Your task to perform on an android device: Empty the shopping cart on amazon.com. Add "logitech g933" to the cart on amazon.com Image 0: 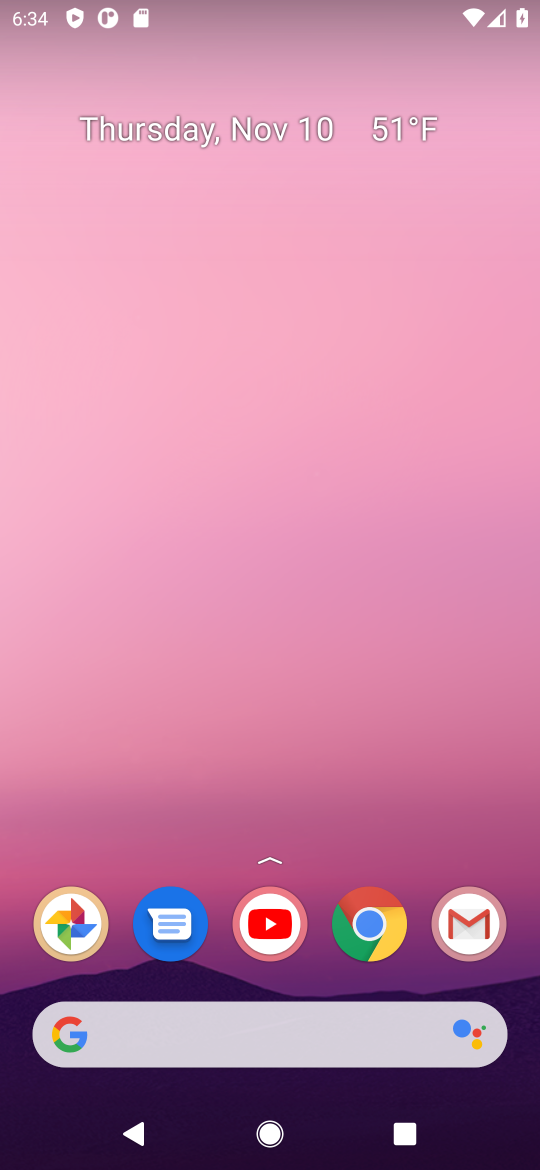
Step 0: click (361, 931)
Your task to perform on an android device: Empty the shopping cart on amazon.com. Add "logitech g933" to the cart on amazon.com Image 1: 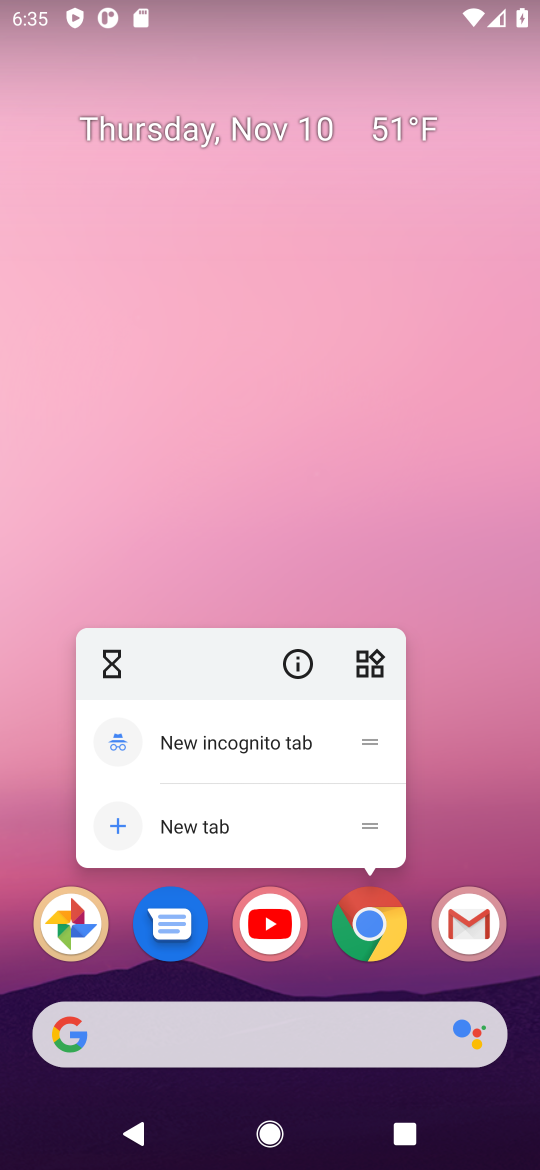
Step 1: click (371, 940)
Your task to perform on an android device: Empty the shopping cart on amazon.com. Add "logitech g933" to the cart on amazon.com Image 2: 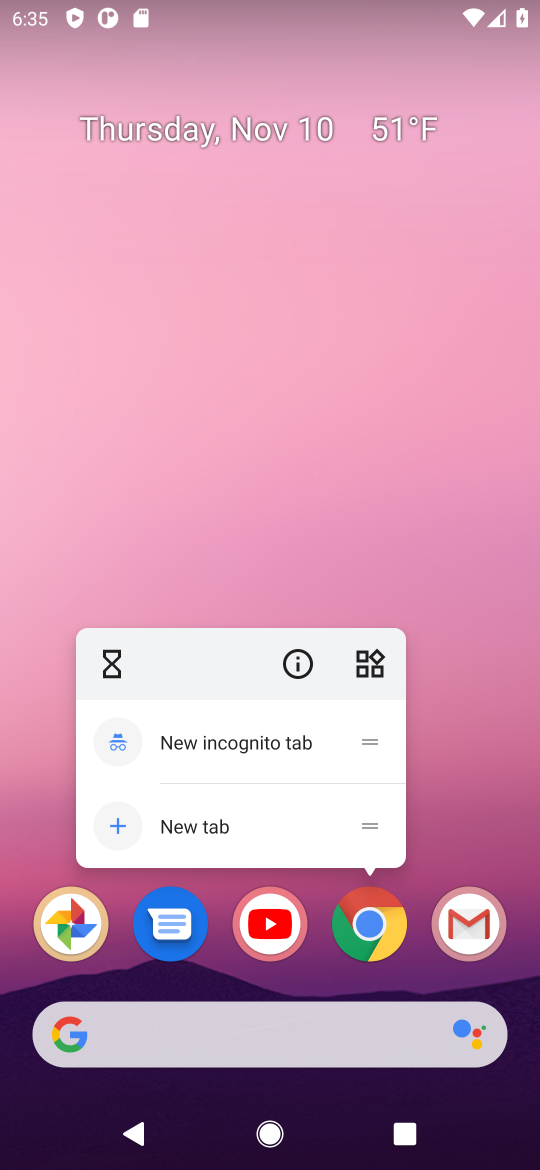
Step 2: click (372, 938)
Your task to perform on an android device: Empty the shopping cart on amazon.com. Add "logitech g933" to the cart on amazon.com Image 3: 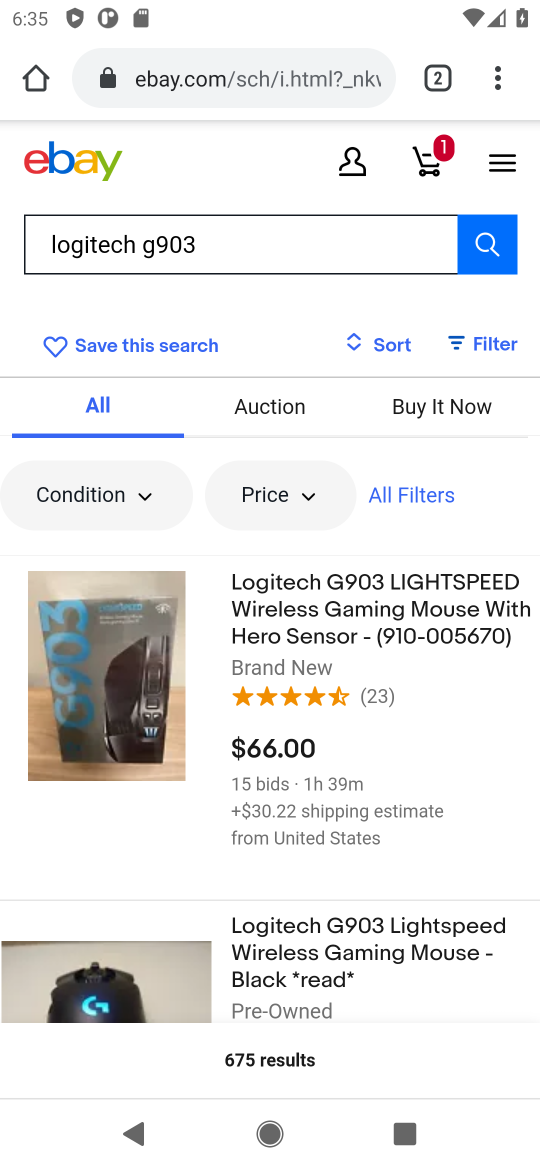
Step 3: click (191, 94)
Your task to perform on an android device: Empty the shopping cart on amazon.com. Add "logitech g933" to the cart on amazon.com Image 4: 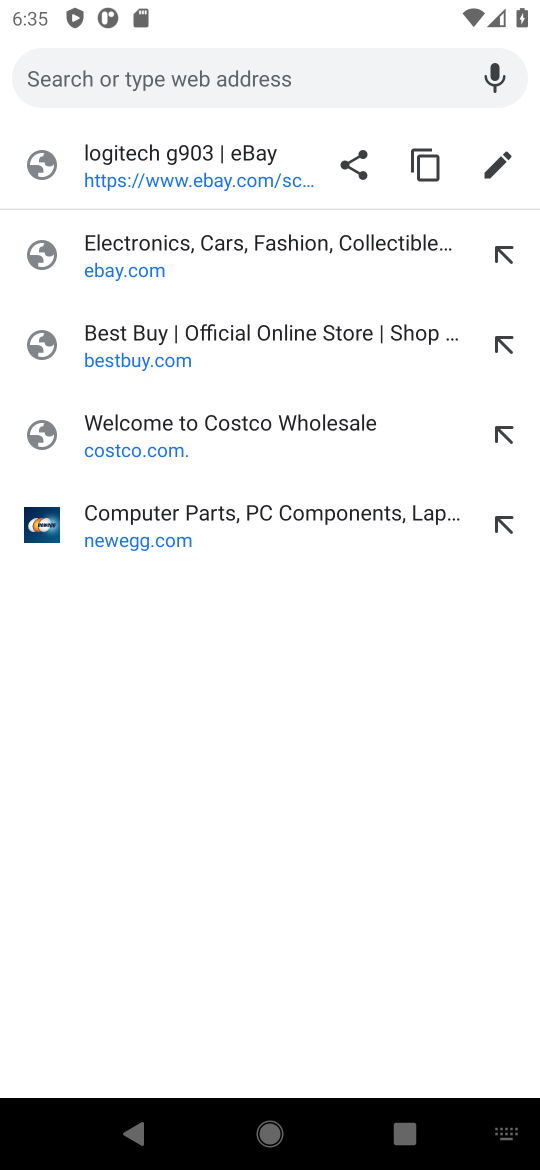
Step 4: type "amazon.com"
Your task to perform on an android device: Empty the shopping cart on amazon.com. Add "logitech g933" to the cart on amazon.com Image 5: 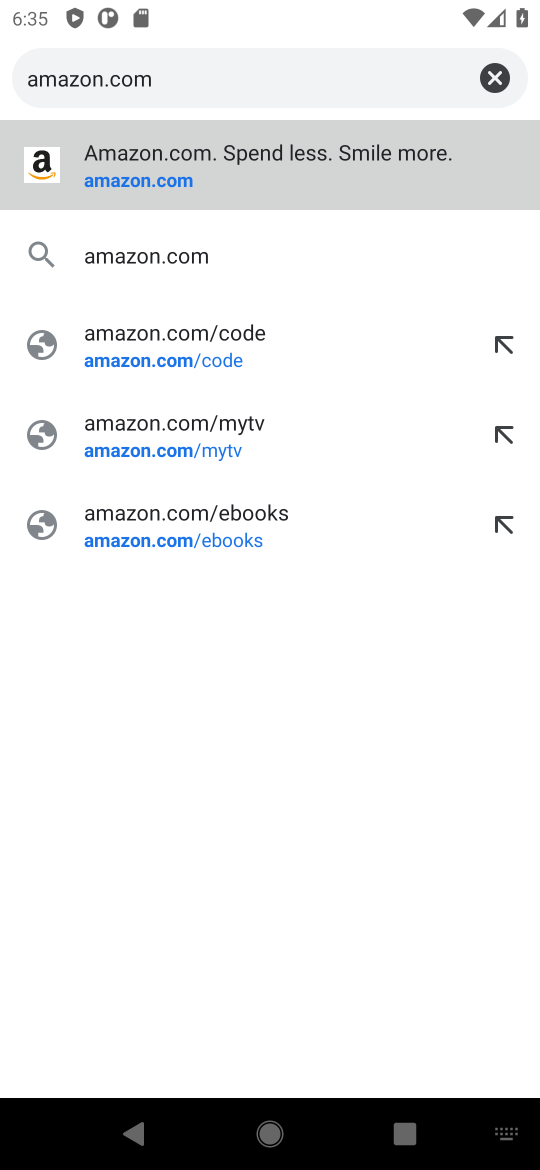
Step 5: click (109, 166)
Your task to perform on an android device: Empty the shopping cart on amazon.com. Add "logitech g933" to the cart on amazon.com Image 6: 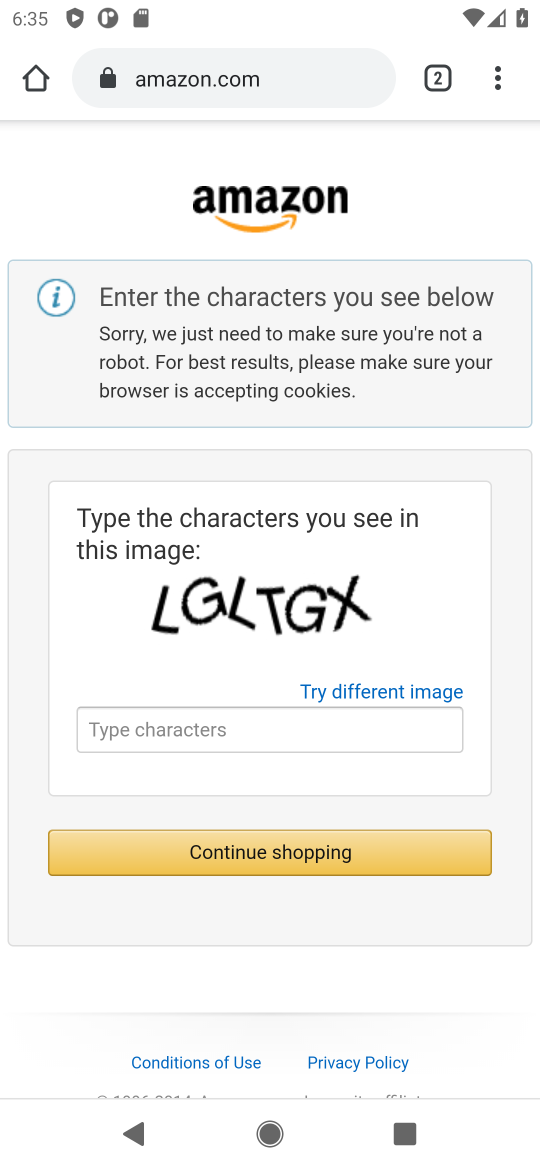
Step 6: click (181, 83)
Your task to perform on an android device: Empty the shopping cart on amazon.com. Add "logitech g933" to the cart on amazon.com Image 7: 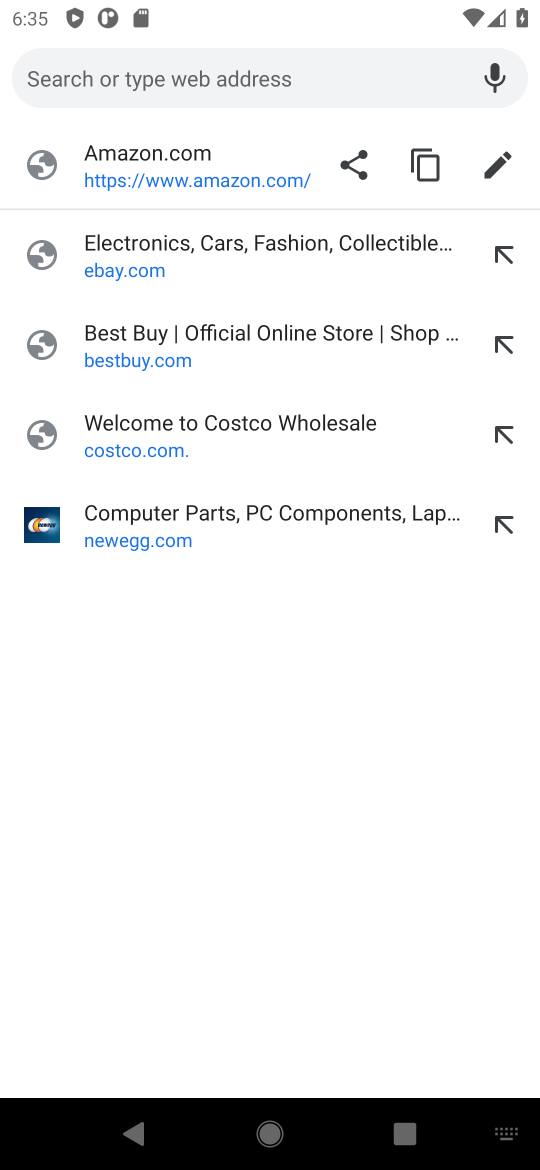
Step 7: type "amazon.com"
Your task to perform on an android device: Empty the shopping cart on amazon.com. Add "logitech g933" to the cart on amazon.com Image 8: 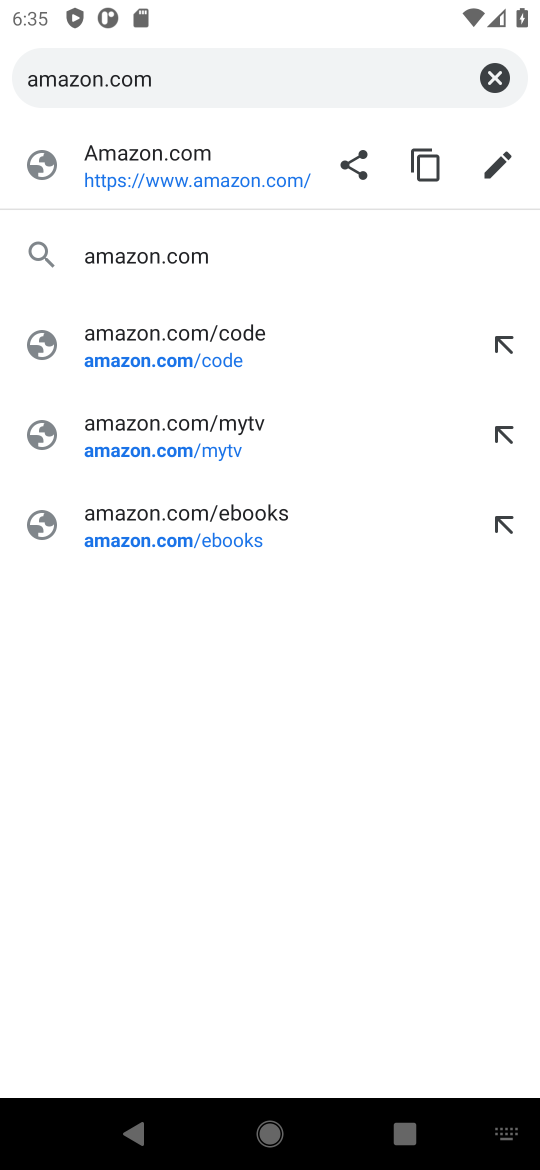
Step 8: click (154, 250)
Your task to perform on an android device: Empty the shopping cart on amazon.com. Add "logitech g933" to the cart on amazon.com Image 9: 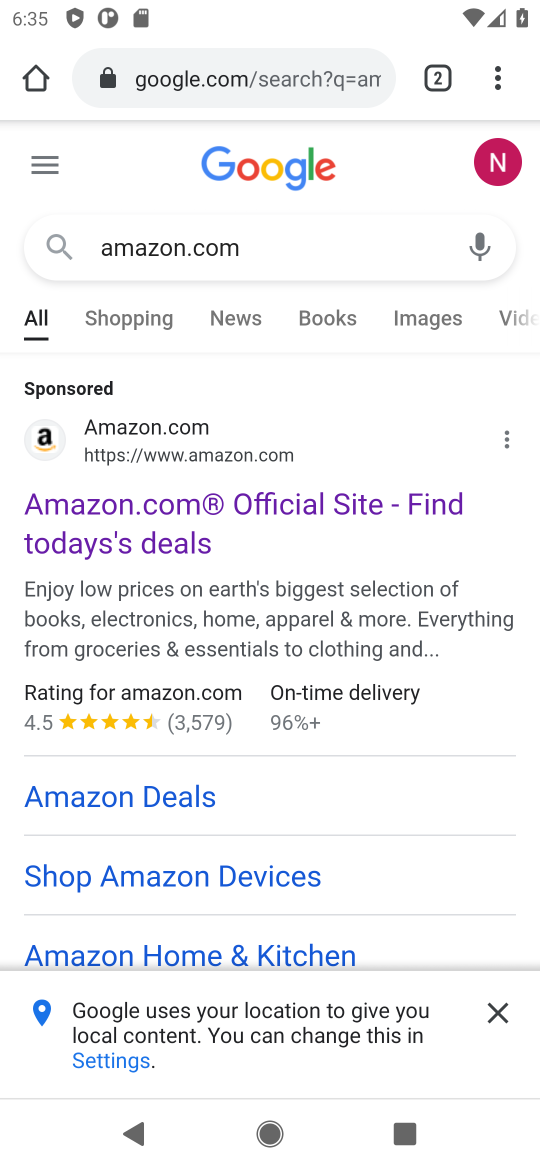
Step 9: drag from (217, 659) to (237, 221)
Your task to perform on an android device: Empty the shopping cart on amazon.com. Add "logitech g933" to the cart on amazon.com Image 10: 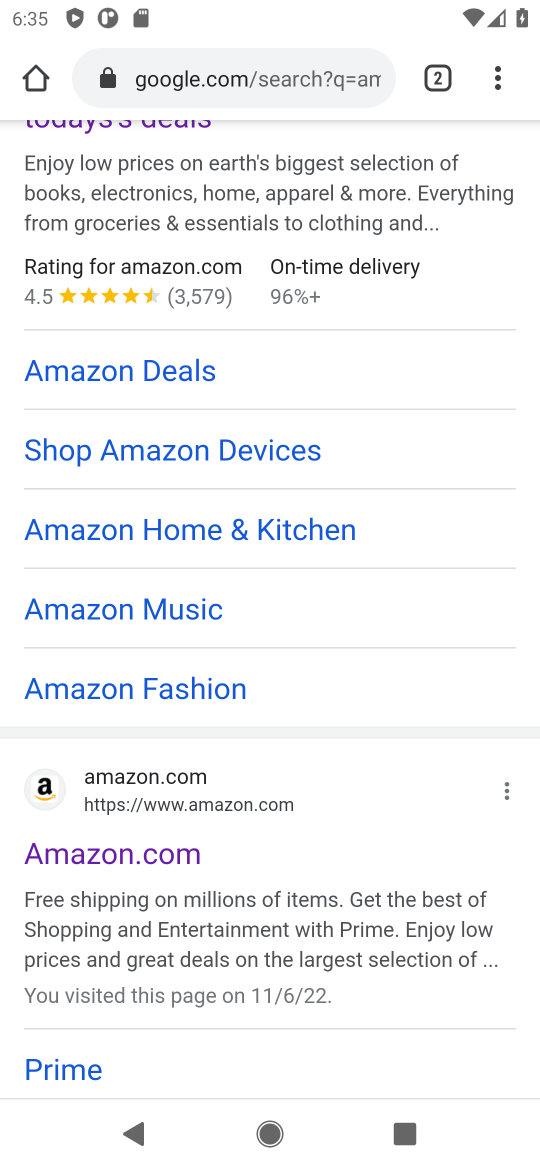
Step 10: click (90, 876)
Your task to perform on an android device: Empty the shopping cart on amazon.com. Add "logitech g933" to the cart on amazon.com Image 11: 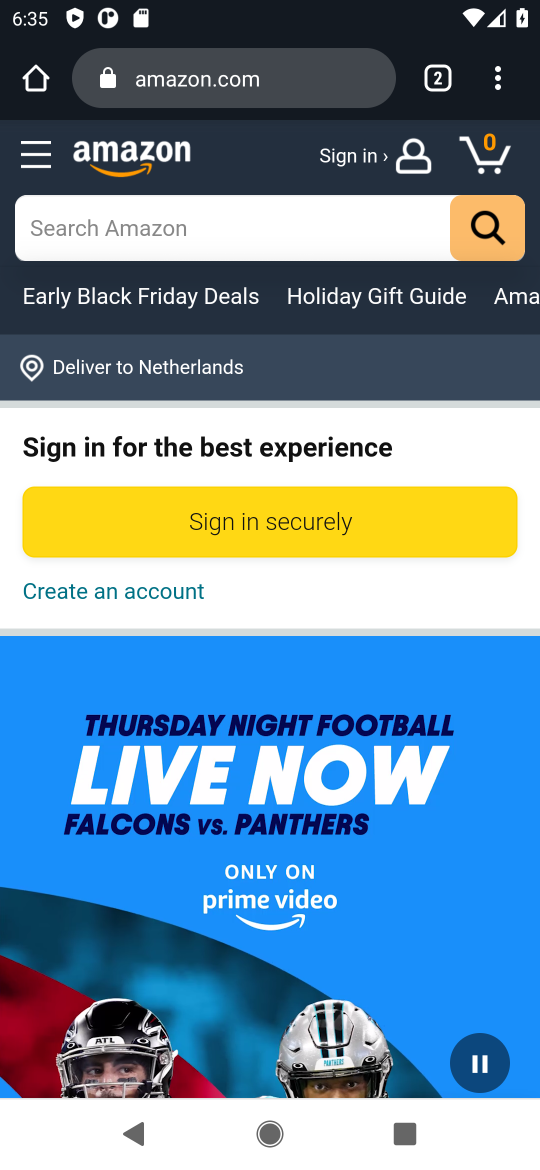
Step 11: click (504, 143)
Your task to perform on an android device: Empty the shopping cart on amazon.com. Add "logitech g933" to the cart on amazon.com Image 12: 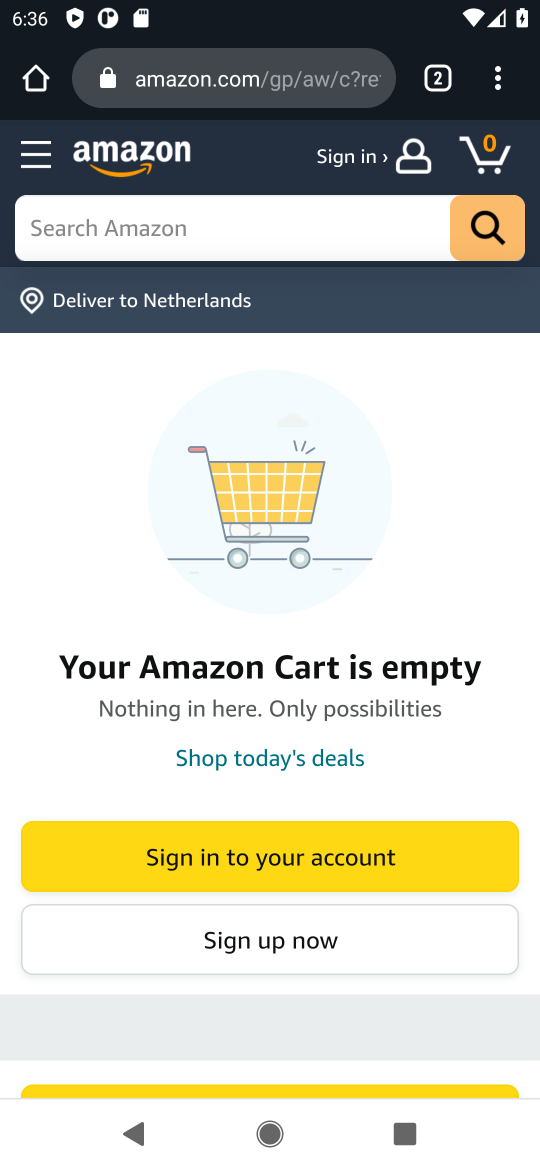
Step 12: click (302, 255)
Your task to perform on an android device: Empty the shopping cart on amazon.com. Add "logitech g933" to the cart on amazon.com Image 13: 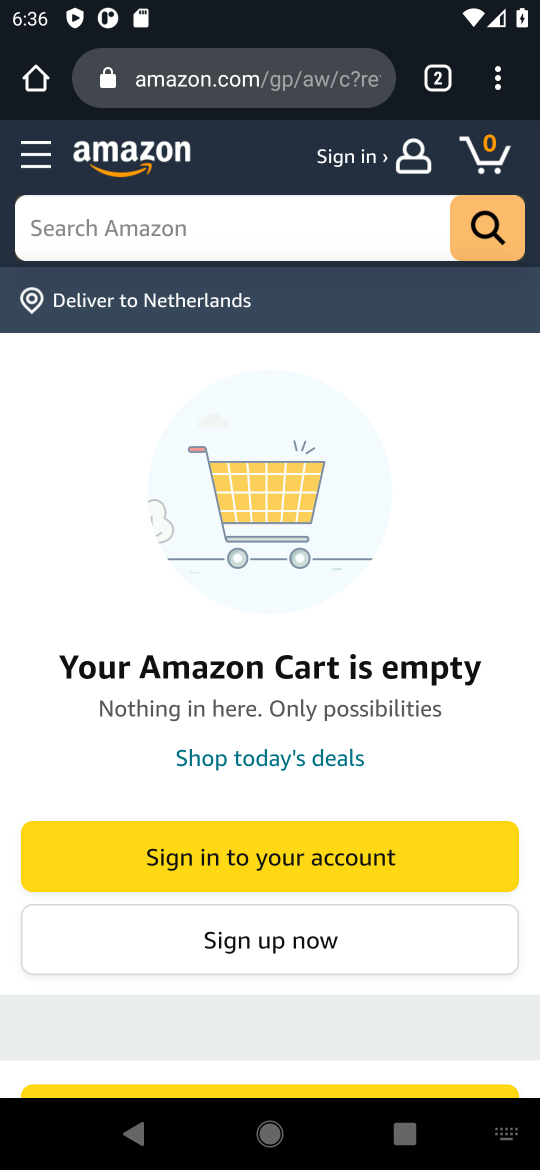
Step 13: type "logitech g933"
Your task to perform on an android device: Empty the shopping cart on amazon.com. Add "logitech g933" to the cart on amazon.com Image 14: 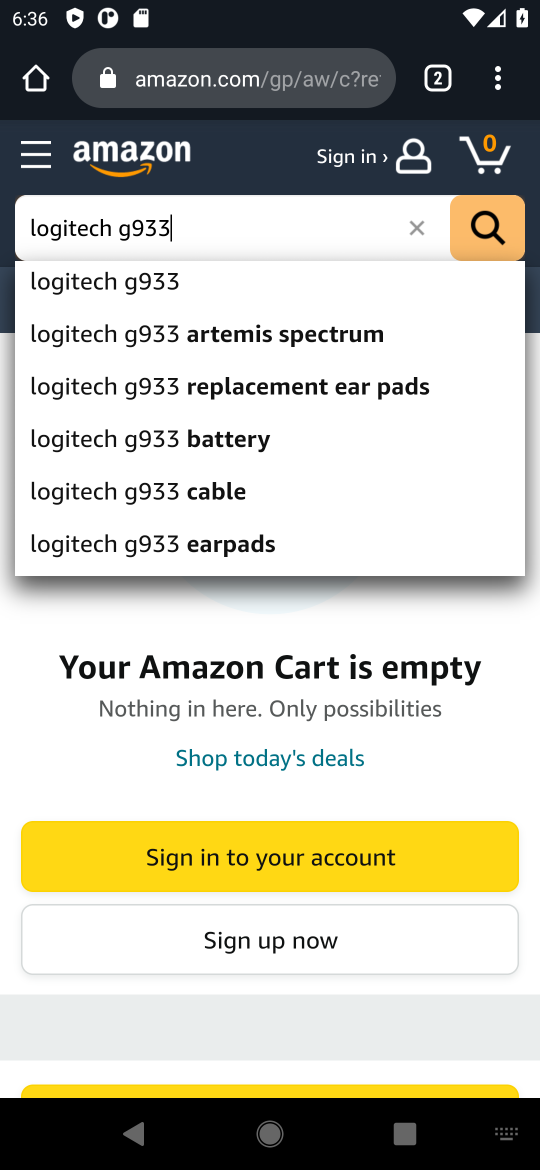
Step 14: click (103, 276)
Your task to perform on an android device: Empty the shopping cart on amazon.com. Add "logitech g933" to the cart on amazon.com Image 15: 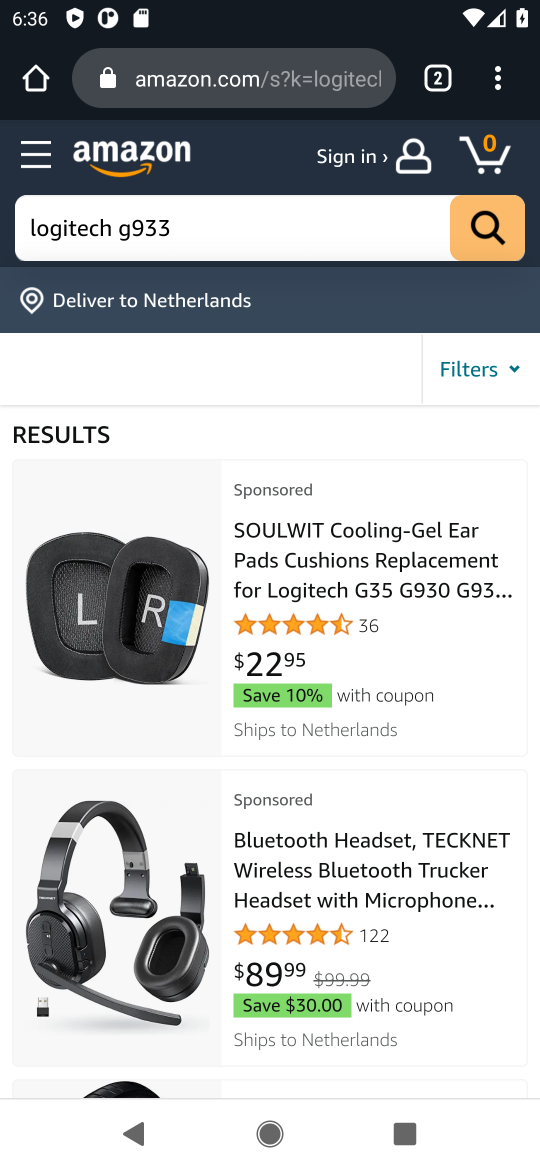
Step 15: click (159, 660)
Your task to perform on an android device: Empty the shopping cart on amazon.com. Add "logitech g933" to the cart on amazon.com Image 16: 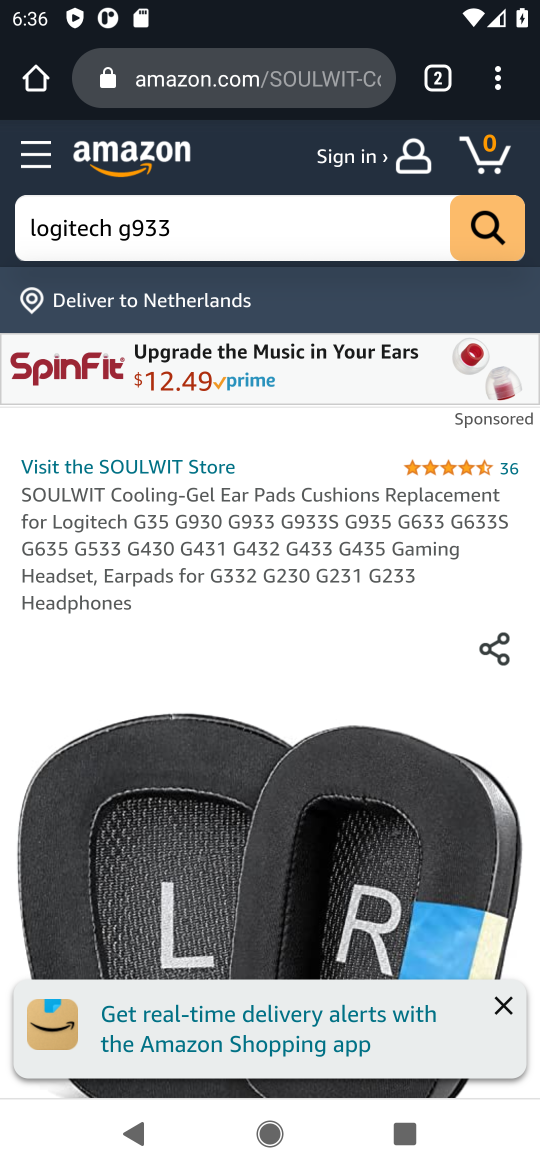
Step 16: drag from (280, 737) to (257, 395)
Your task to perform on an android device: Empty the shopping cart on amazon.com. Add "logitech g933" to the cart on amazon.com Image 17: 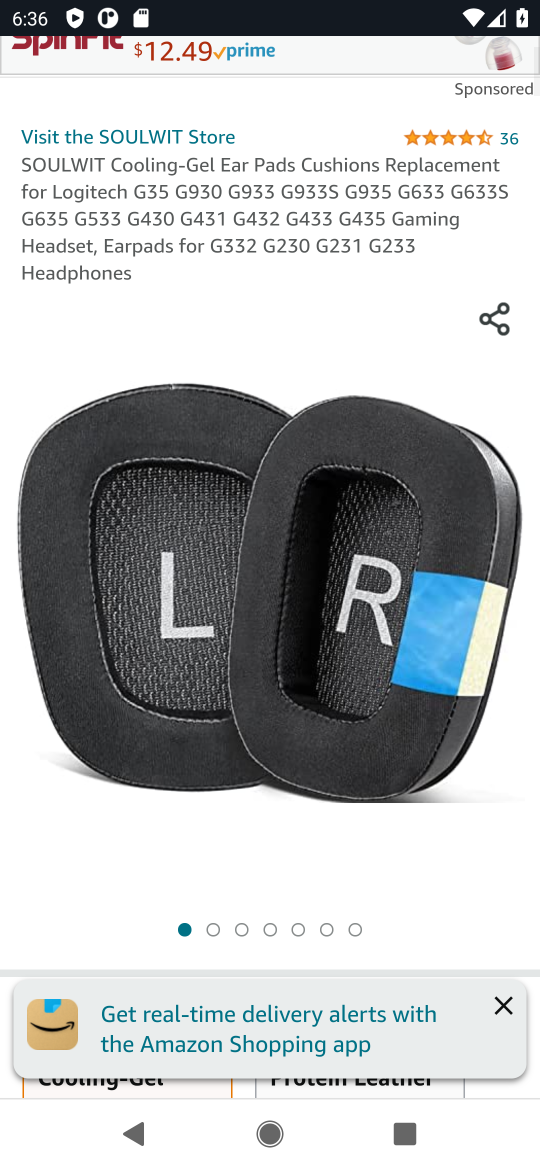
Step 17: drag from (254, 613) to (231, 283)
Your task to perform on an android device: Empty the shopping cart on amazon.com. Add "logitech g933" to the cart on amazon.com Image 18: 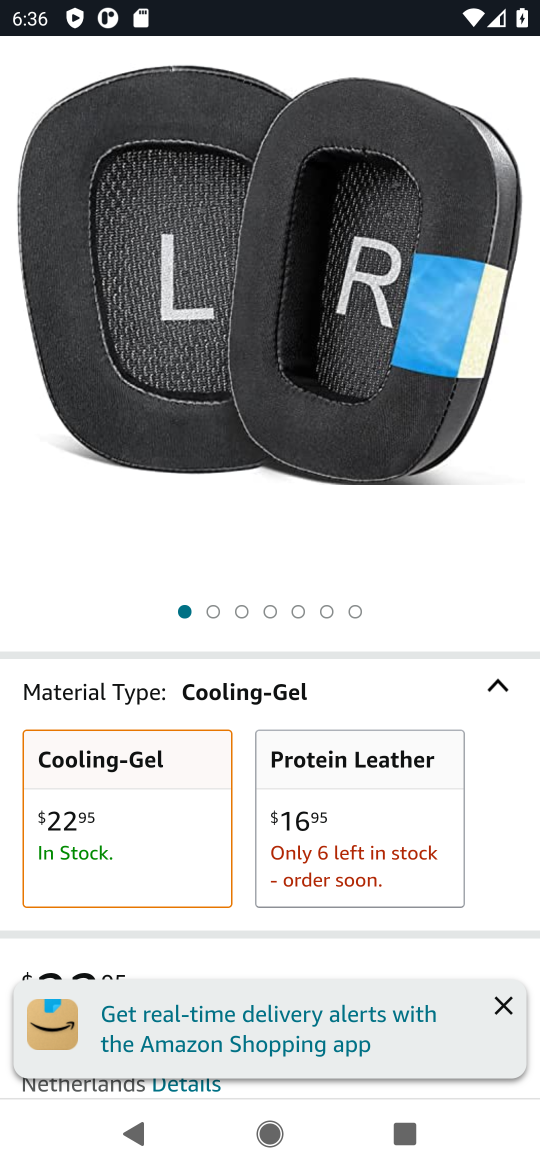
Step 18: drag from (228, 695) to (213, 329)
Your task to perform on an android device: Empty the shopping cart on amazon.com. Add "logitech g933" to the cart on amazon.com Image 19: 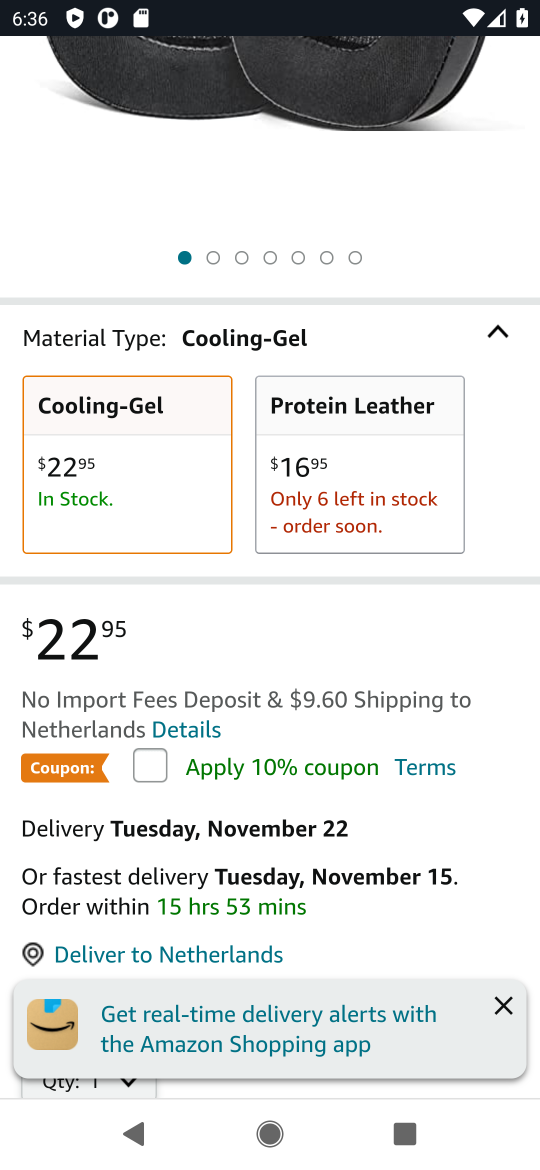
Step 19: drag from (250, 753) to (236, 342)
Your task to perform on an android device: Empty the shopping cart on amazon.com. Add "logitech g933" to the cart on amazon.com Image 20: 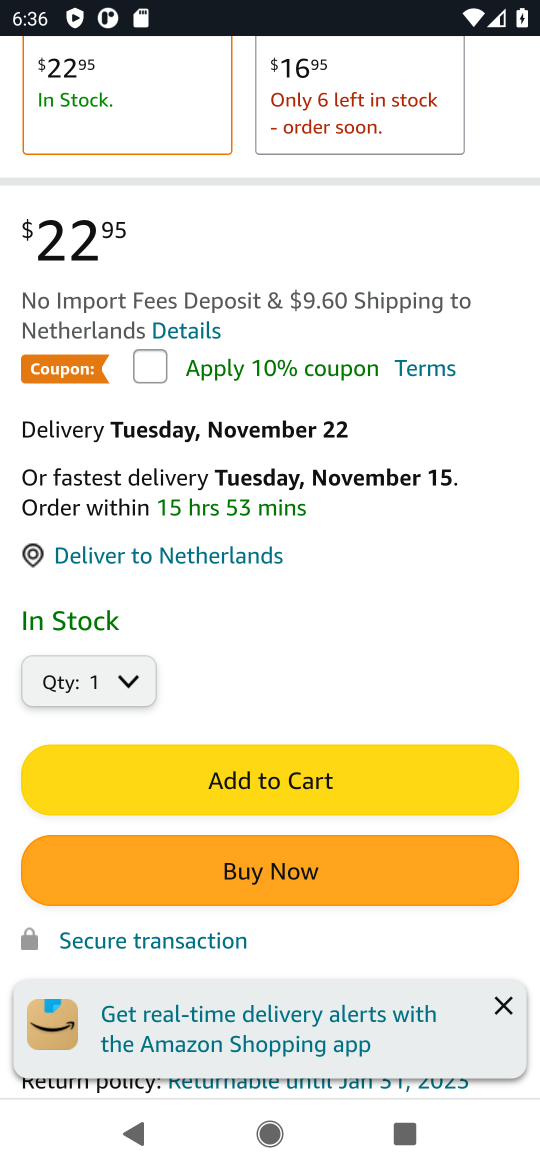
Step 20: click (245, 782)
Your task to perform on an android device: Empty the shopping cart on amazon.com. Add "logitech g933" to the cart on amazon.com Image 21: 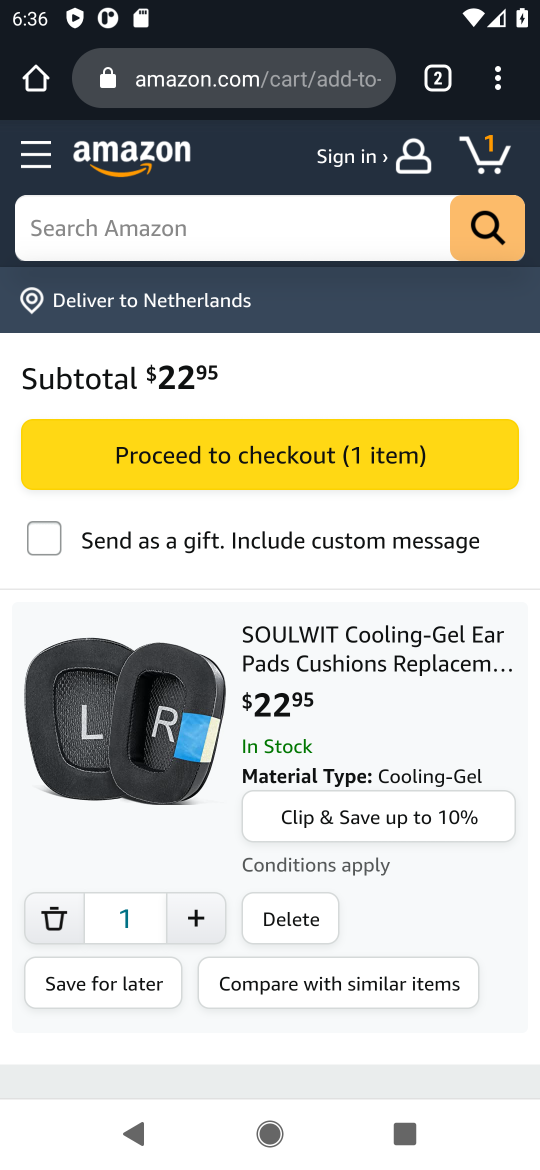
Step 21: task complete